Your task to perform on an android device: turn on the 24-hour format for clock Image 0: 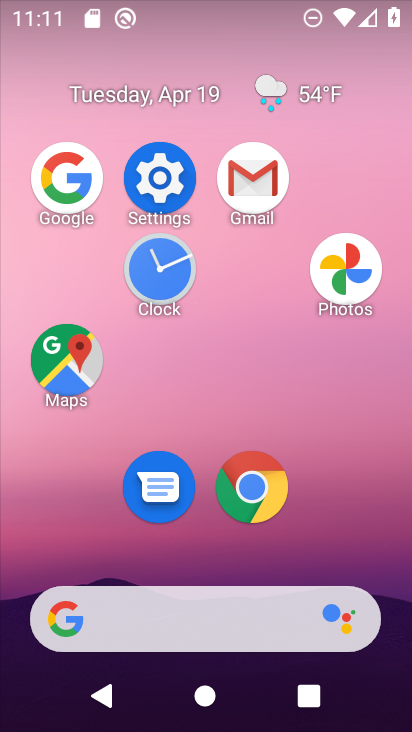
Step 0: click (236, 485)
Your task to perform on an android device: turn on the 24-hour format for clock Image 1: 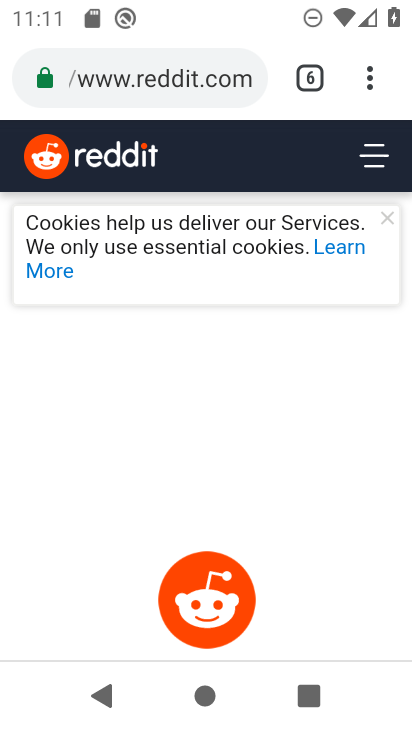
Step 1: press home button
Your task to perform on an android device: turn on the 24-hour format for clock Image 2: 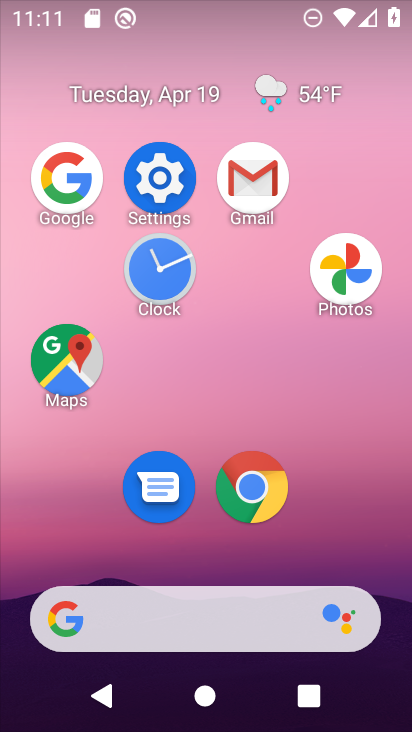
Step 2: click (153, 259)
Your task to perform on an android device: turn on the 24-hour format for clock Image 3: 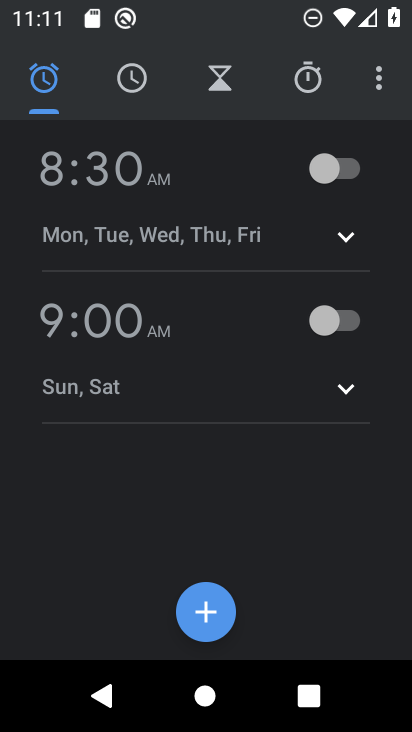
Step 3: click (378, 80)
Your task to perform on an android device: turn on the 24-hour format for clock Image 4: 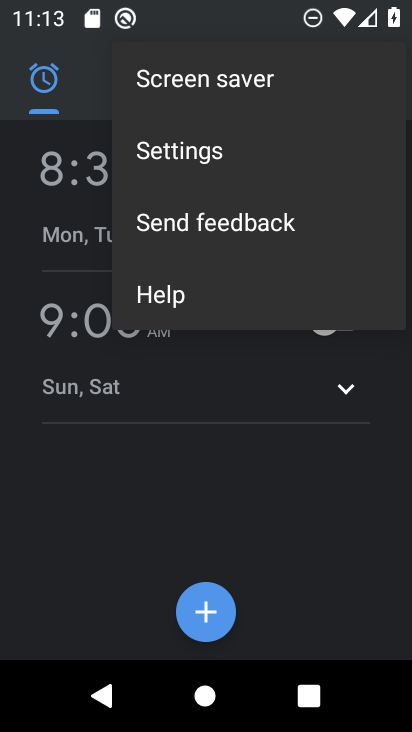
Step 4: click (250, 142)
Your task to perform on an android device: turn on the 24-hour format for clock Image 5: 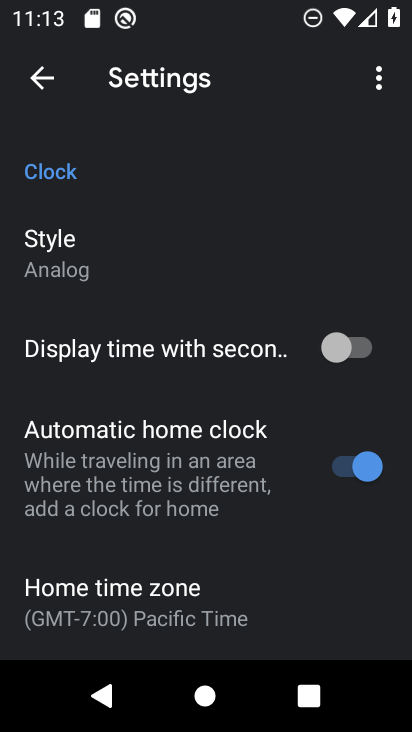
Step 5: drag from (227, 564) to (222, 141)
Your task to perform on an android device: turn on the 24-hour format for clock Image 6: 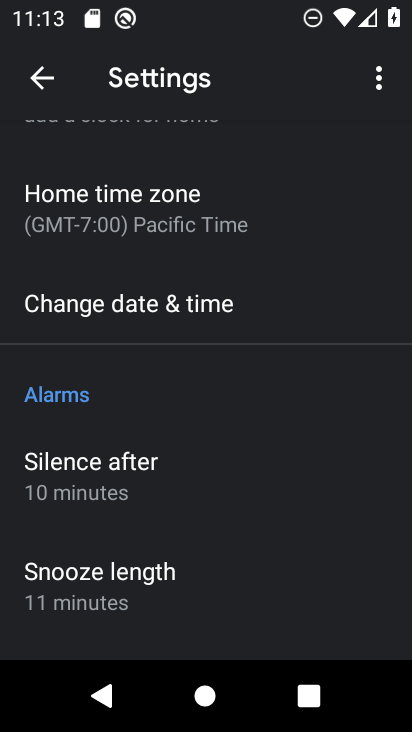
Step 6: click (200, 307)
Your task to perform on an android device: turn on the 24-hour format for clock Image 7: 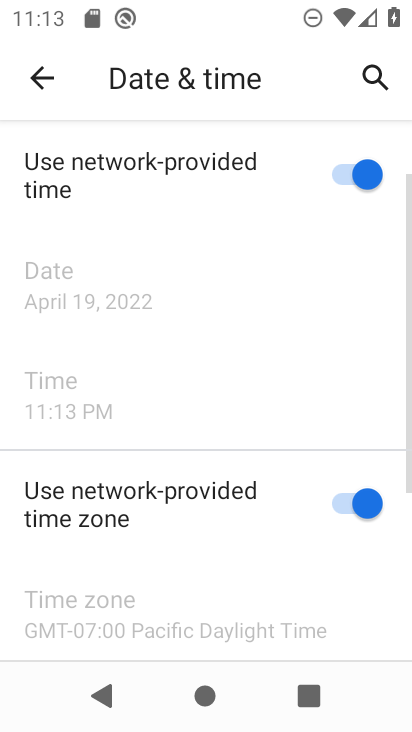
Step 7: drag from (203, 535) to (137, 60)
Your task to perform on an android device: turn on the 24-hour format for clock Image 8: 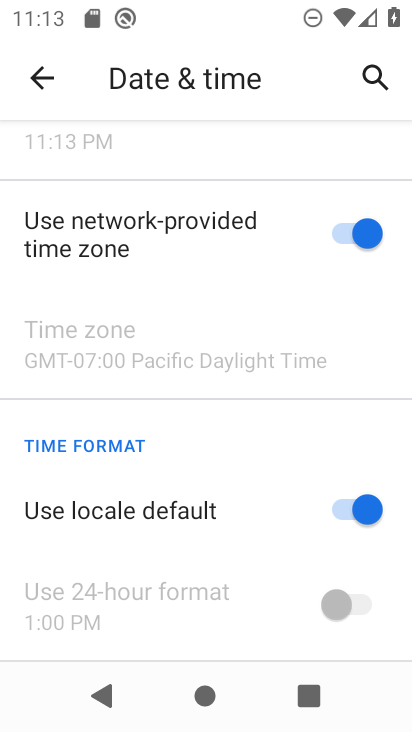
Step 8: drag from (171, 485) to (175, 74)
Your task to perform on an android device: turn on the 24-hour format for clock Image 9: 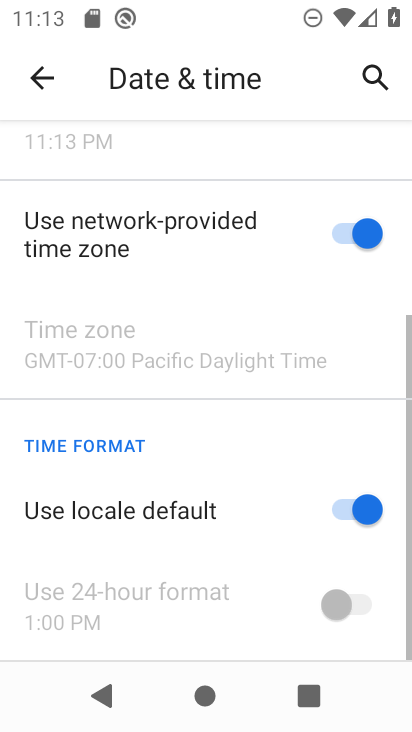
Step 9: click (362, 510)
Your task to perform on an android device: turn on the 24-hour format for clock Image 10: 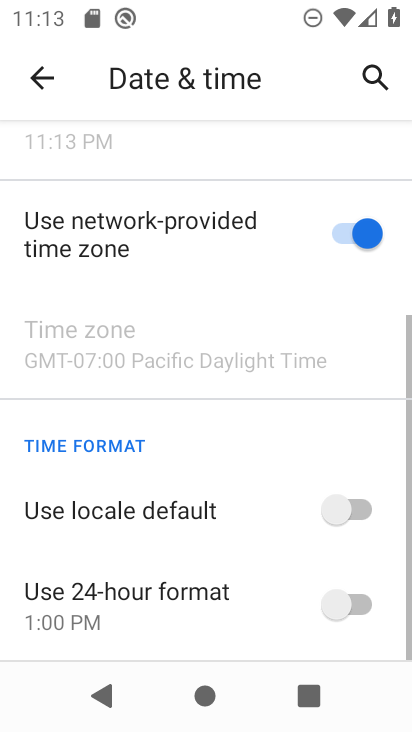
Step 10: click (351, 604)
Your task to perform on an android device: turn on the 24-hour format for clock Image 11: 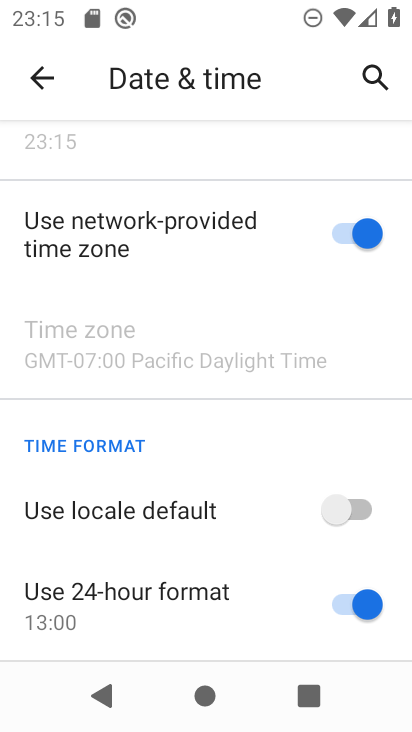
Step 11: task complete